Your task to perform on an android device: create a new album in the google photos Image 0: 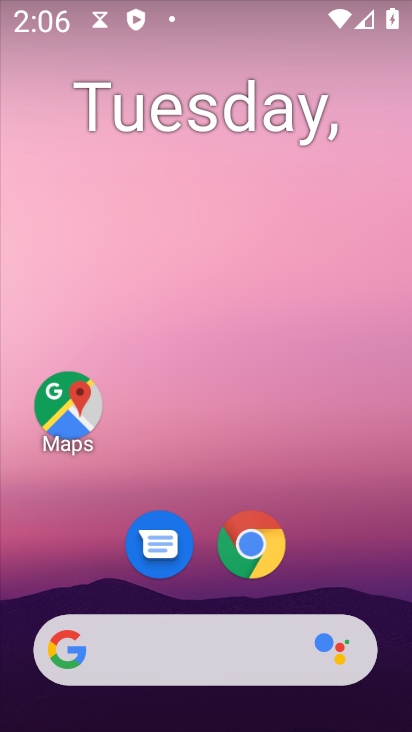
Step 0: drag from (325, 520) to (258, 31)
Your task to perform on an android device: create a new album in the google photos Image 1: 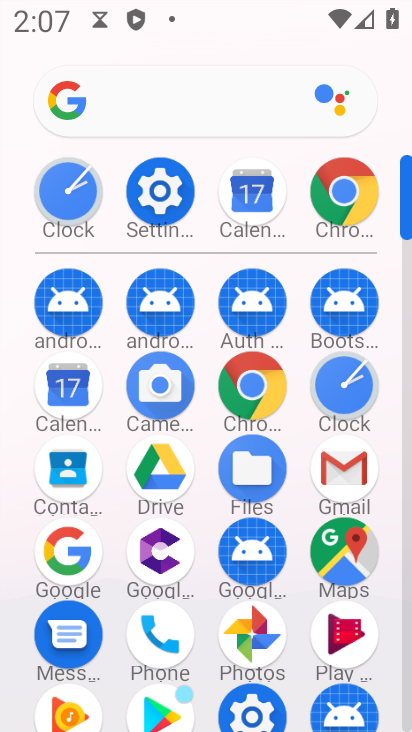
Step 1: drag from (14, 549) to (12, 290)
Your task to perform on an android device: create a new album in the google photos Image 2: 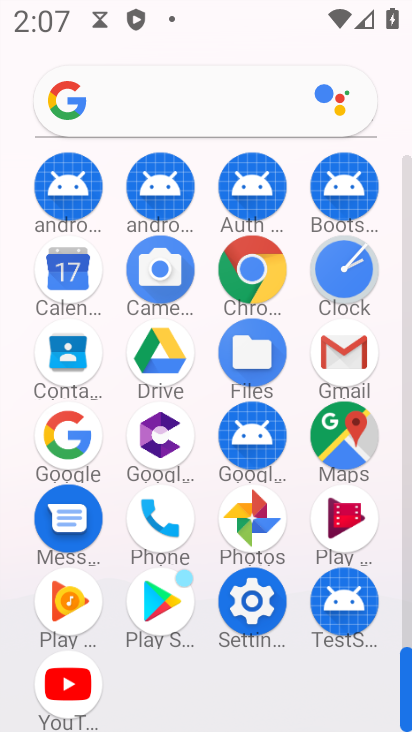
Step 2: click (253, 517)
Your task to perform on an android device: create a new album in the google photos Image 3: 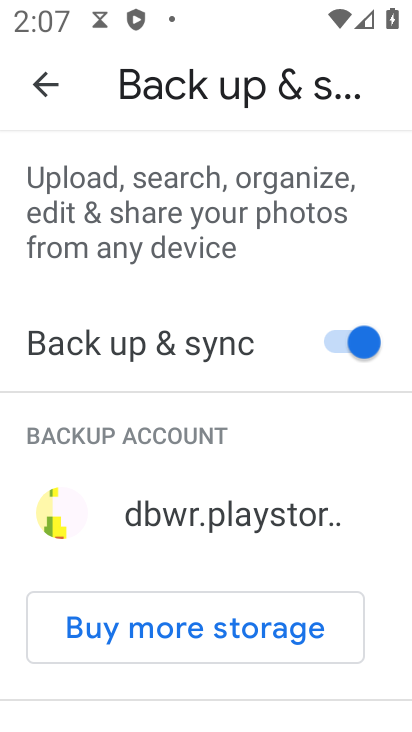
Step 3: drag from (219, 512) to (215, 196)
Your task to perform on an android device: create a new album in the google photos Image 4: 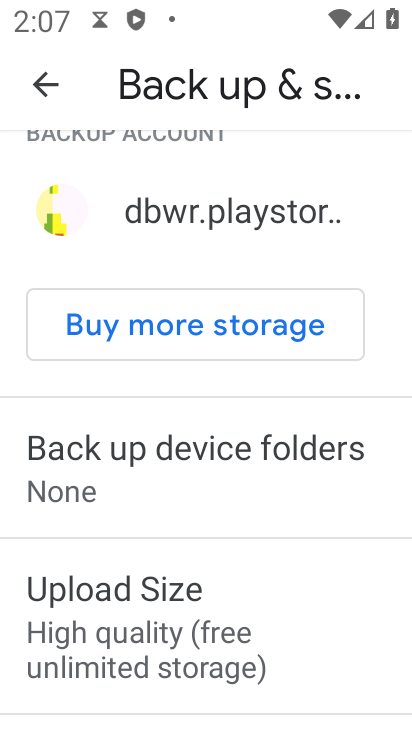
Step 4: drag from (203, 658) to (206, 275)
Your task to perform on an android device: create a new album in the google photos Image 5: 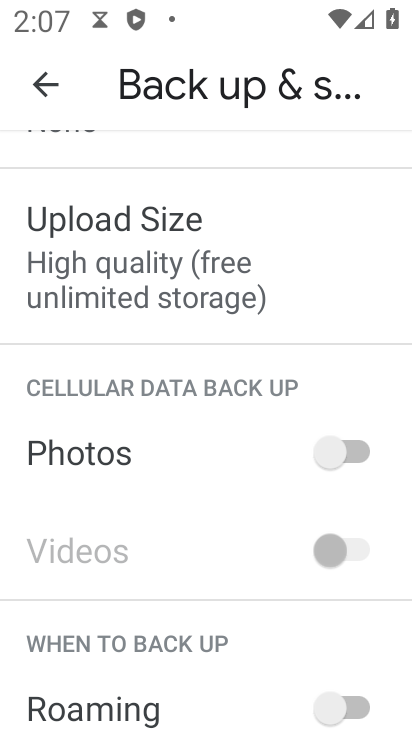
Step 5: click (34, 95)
Your task to perform on an android device: create a new album in the google photos Image 6: 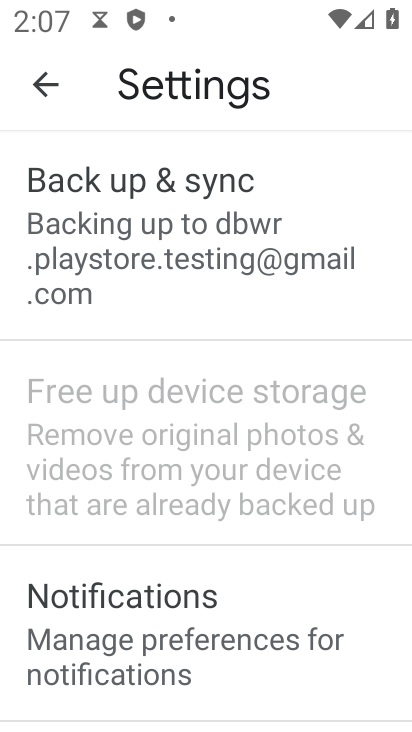
Step 6: click (34, 95)
Your task to perform on an android device: create a new album in the google photos Image 7: 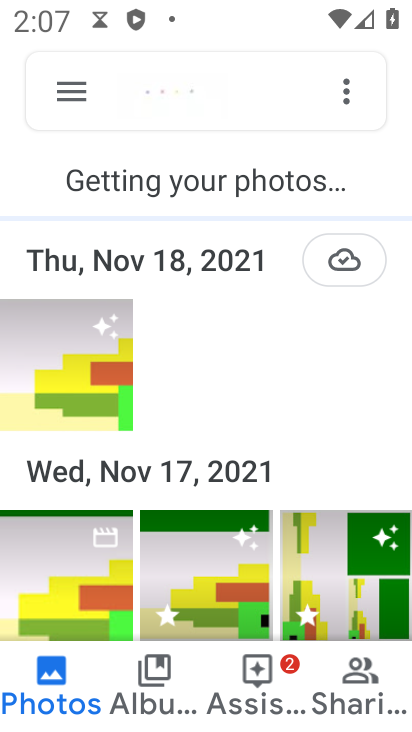
Step 7: click (42, 346)
Your task to perform on an android device: create a new album in the google photos Image 8: 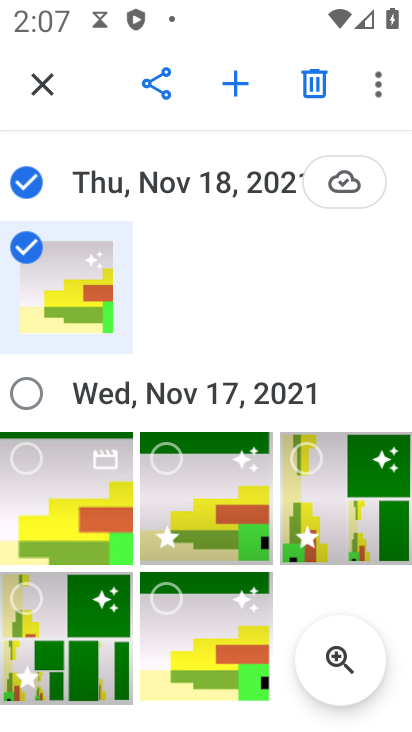
Step 8: click (240, 72)
Your task to perform on an android device: create a new album in the google photos Image 9: 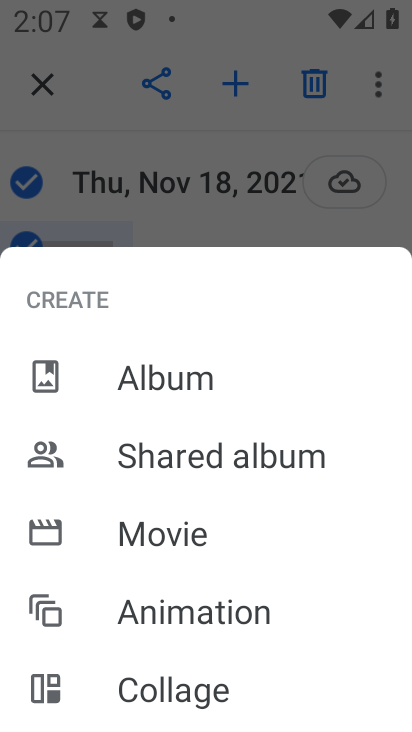
Step 9: click (189, 374)
Your task to perform on an android device: create a new album in the google photos Image 10: 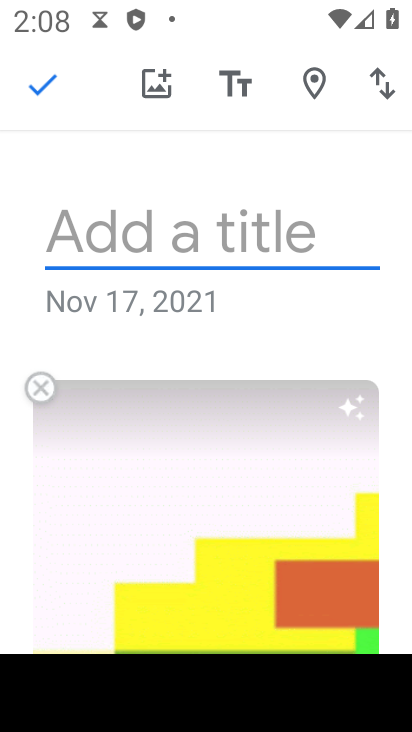
Step 10: type "SDFGHFD"
Your task to perform on an android device: create a new album in the google photos Image 11: 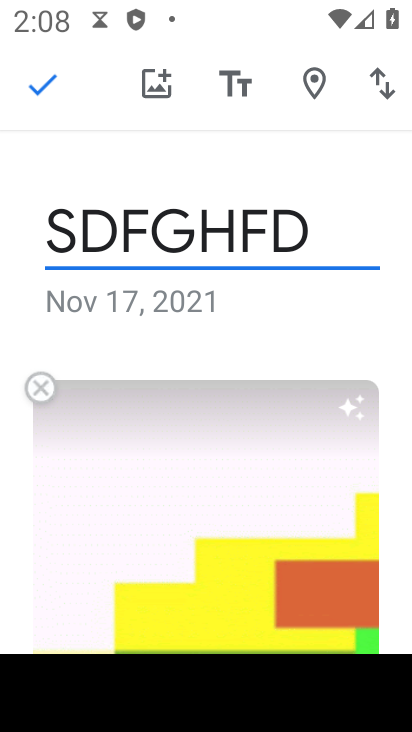
Step 11: click (33, 76)
Your task to perform on an android device: create a new album in the google photos Image 12: 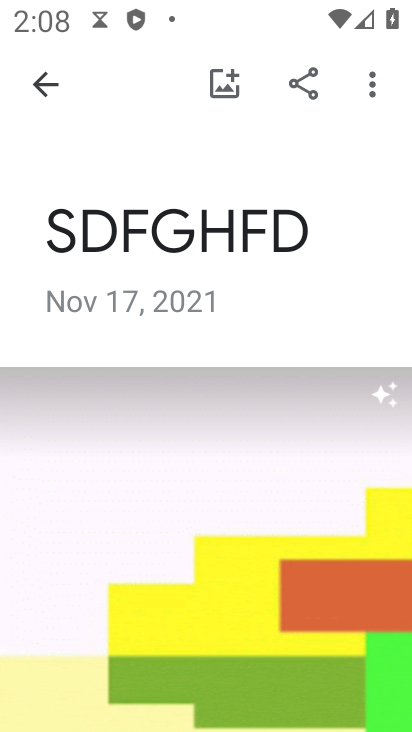
Step 12: task complete